Your task to perform on an android device: Open settings Image 0: 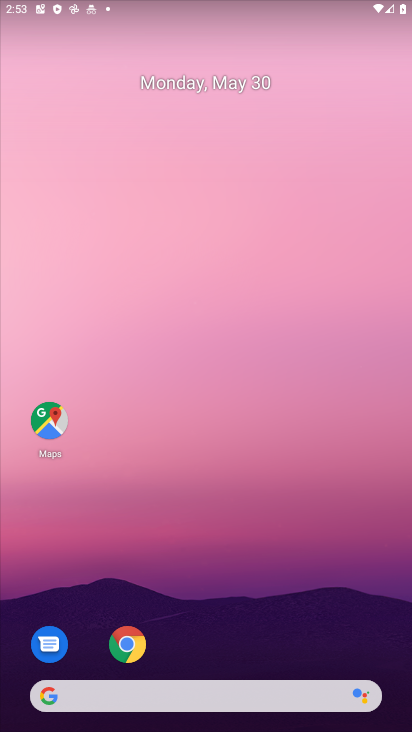
Step 0: drag from (291, 648) to (159, 98)
Your task to perform on an android device: Open settings Image 1: 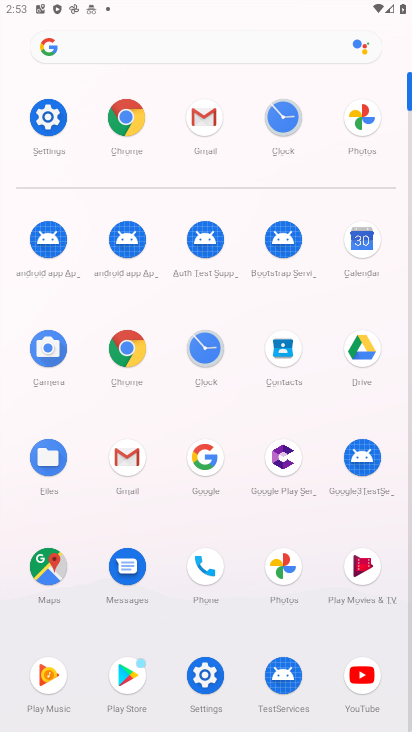
Step 1: click (45, 143)
Your task to perform on an android device: Open settings Image 2: 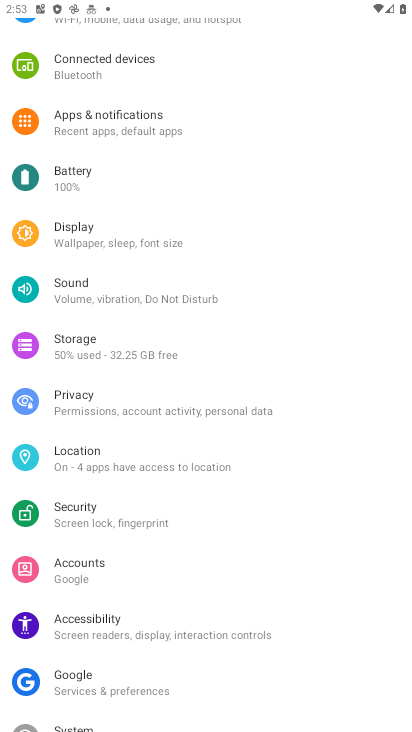
Step 2: task complete